Your task to perform on an android device: Play the last video I watched on Youtube Image 0: 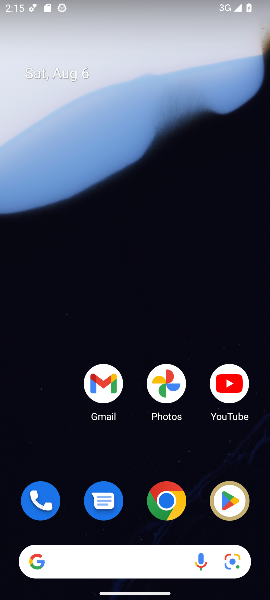
Step 0: press home button
Your task to perform on an android device: Play the last video I watched on Youtube Image 1: 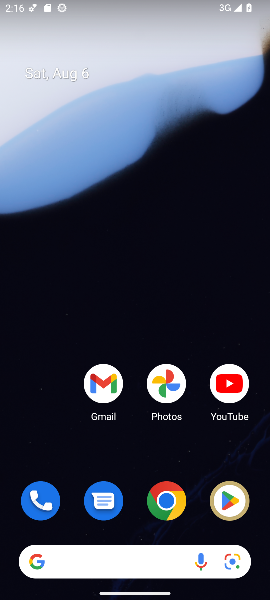
Step 1: click (107, 577)
Your task to perform on an android device: Play the last video I watched on Youtube Image 2: 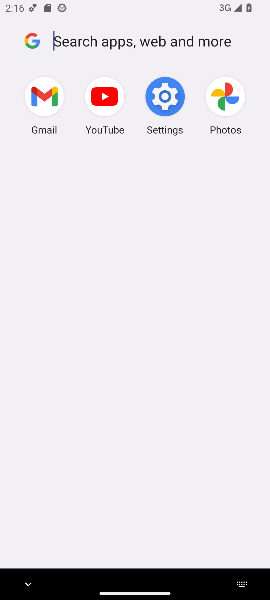
Step 2: click (97, 108)
Your task to perform on an android device: Play the last video I watched on Youtube Image 3: 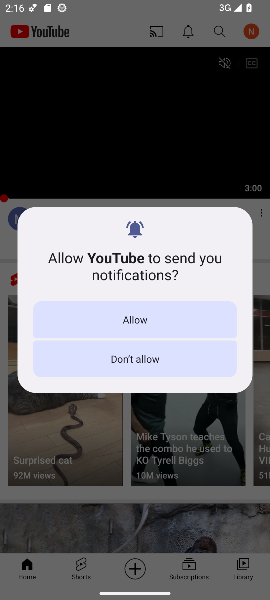
Step 3: click (134, 325)
Your task to perform on an android device: Play the last video I watched on Youtube Image 4: 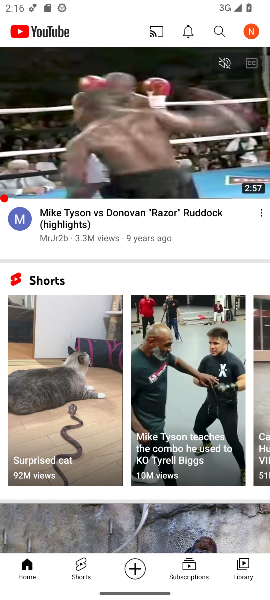
Step 4: click (239, 573)
Your task to perform on an android device: Play the last video I watched on Youtube Image 5: 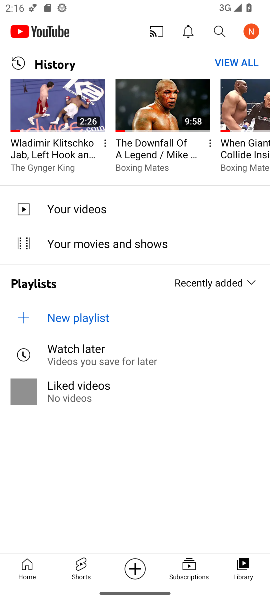
Step 5: click (70, 111)
Your task to perform on an android device: Play the last video I watched on Youtube Image 6: 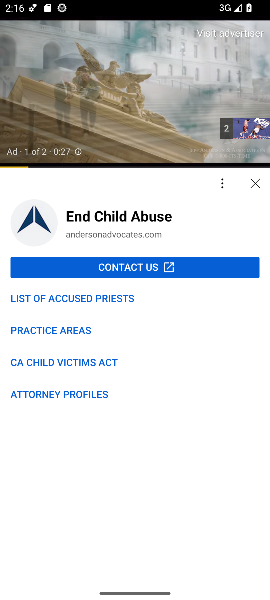
Step 6: click (252, 189)
Your task to perform on an android device: Play the last video I watched on Youtube Image 7: 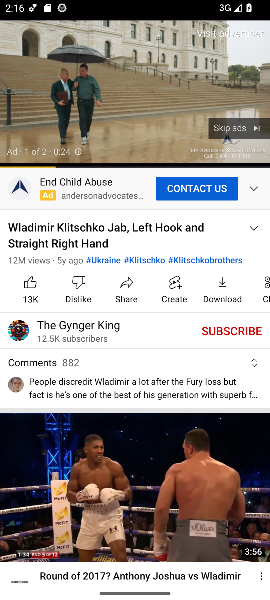
Step 7: click (233, 127)
Your task to perform on an android device: Play the last video I watched on Youtube Image 8: 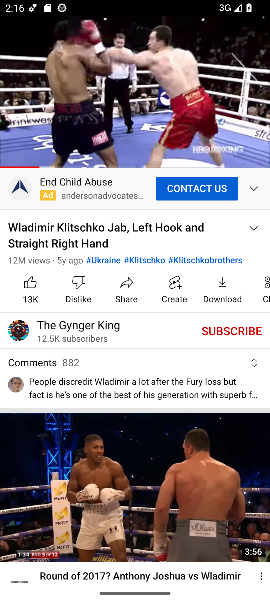
Step 8: task complete